Your task to perform on an android device: change notifications settings Image 0: 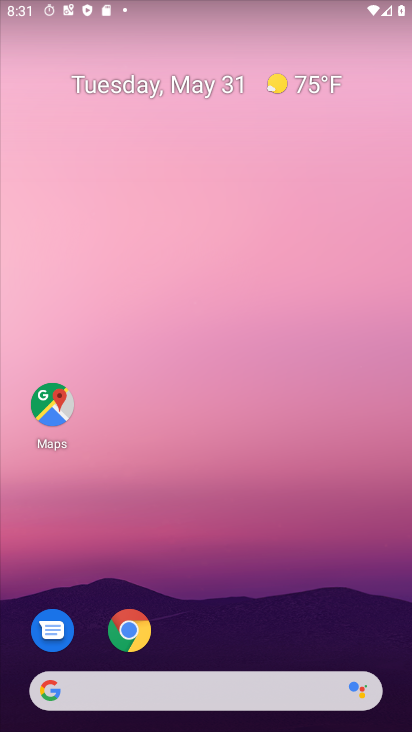
Step 0: drag from (190, 618) to (258, 162)
Your task to perform on an android device: change notifications settings Image 1: 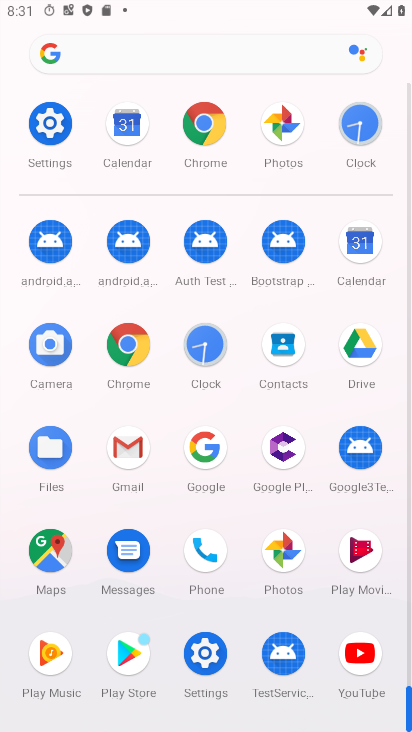
Step 1: click (55, 144)
Your task to perform on an android device: change notifications settings Image 2: 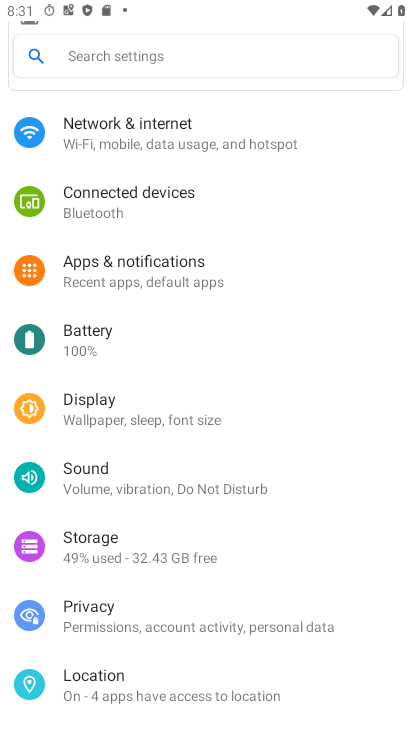
Step 2: click (153, 270)
Your task to perform on an android device: change notifications settings Image 3: 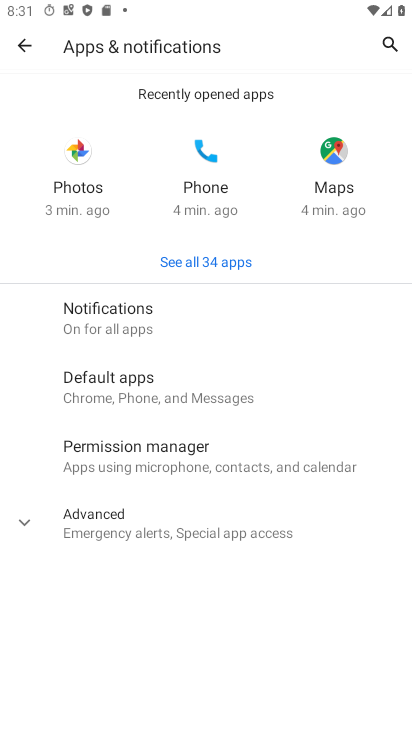
Step 3: click (178, 331)
Your task to perform on an android device: change notifications settings Image 4: 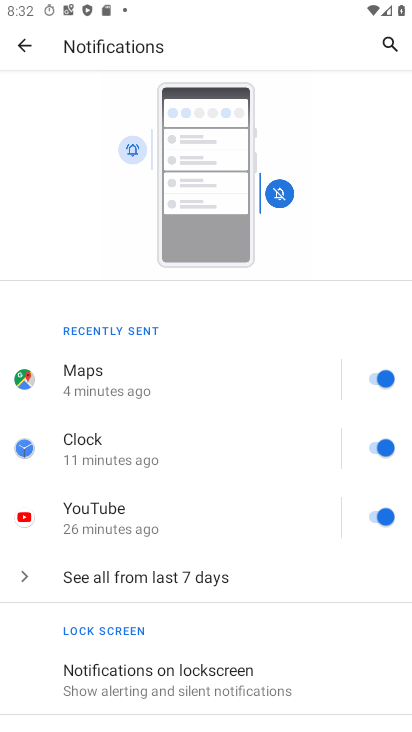
Step 4: drag from (145, 607) to (188, 424)
Your task to perform on an android device: change notifications settings Image 5: 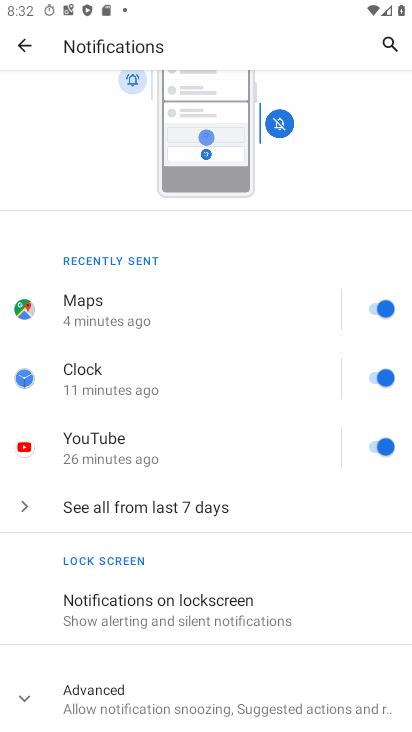
Step 5: drag from (152, 638) to (171, 414)
Your task to perform on an android device: change notifications settings Image 6: 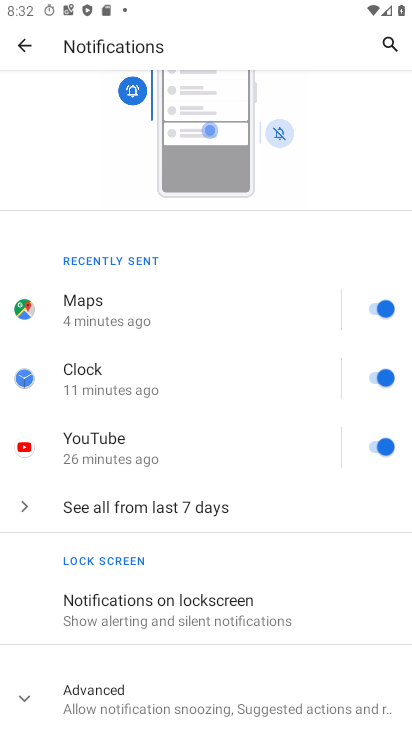
Step 6: click (373, 373)
Your task to perform on an android device: change notifications settings Image 7: 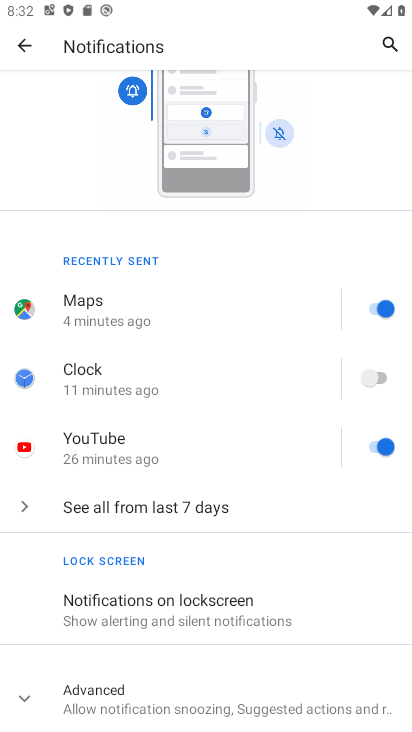
Step 7: task complete